Your task to perform on an android device: Go to notification settings Image 0: 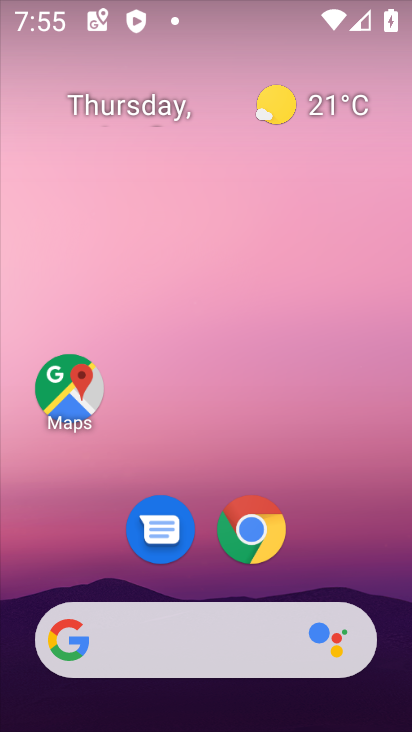
Step 0: drag from (179, 681) to (120, 384)
Your task to perform on an android device: Go to notification settings Image 1: 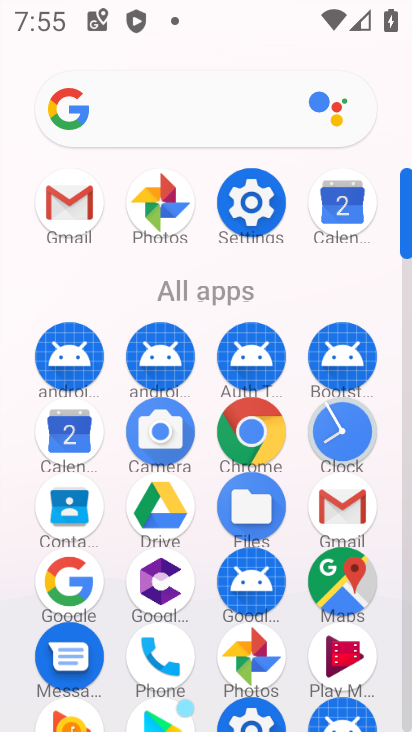
Step 1: click (252, 191)
Your task to perform on an android device: Go to notification settings Image 2: 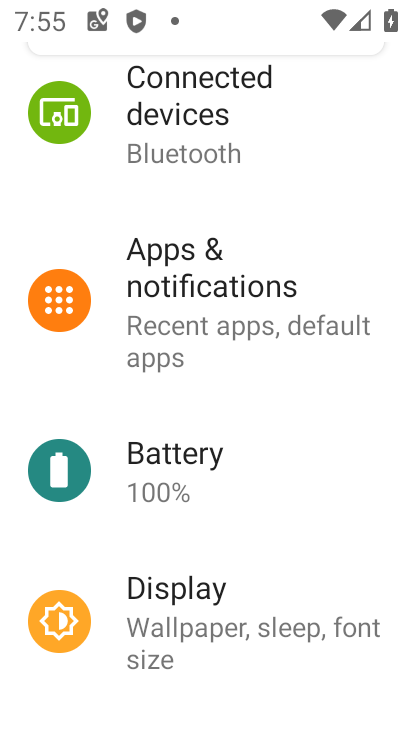
Step 2: click (176, 346)
Your task to perform on an android device: Go to notification settings Image 3: 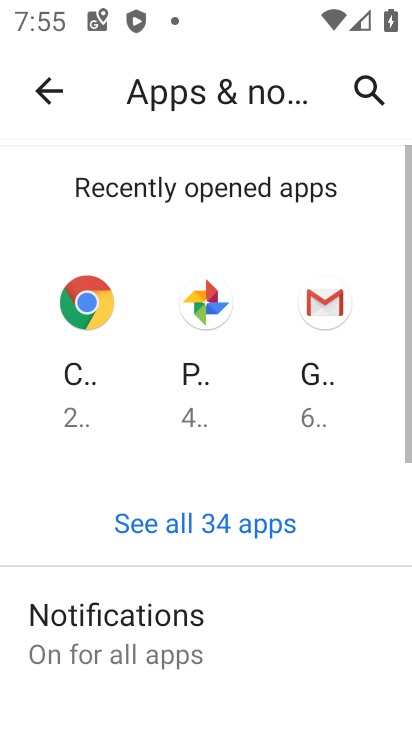
Step 3: task complete